Your task to perform on an android device: turn on the 12-hour format for clock Image 0: 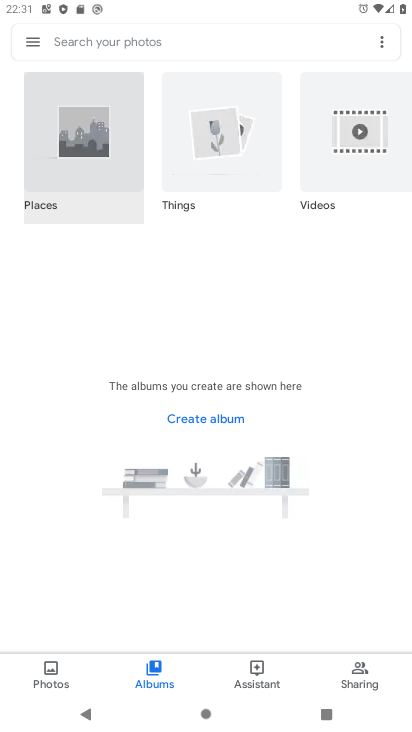
Step 0: drag from (61, 649) to (252, 276)
Your task to perform on an android device: turn on the 12-hour format for clock Image 1: 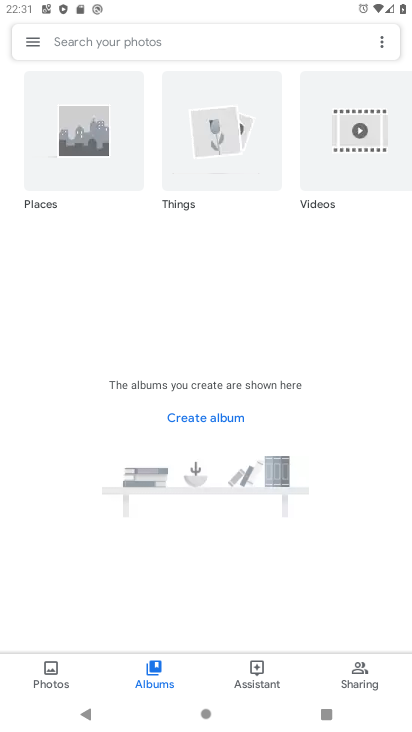
Step 1: press home button
Your task to perform on an android device: turn on the 12-hour format for clock Image 2: 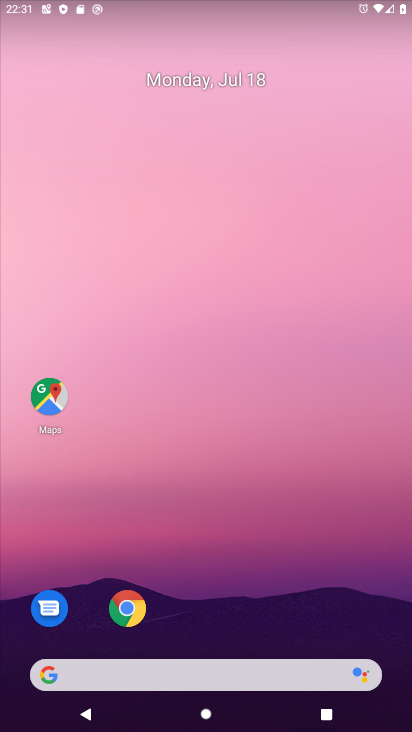
Step 2: drag from (49, 680) to (193, 310)
Your task to perform on an android device: turn on the 12-hour format for clock Image 3: 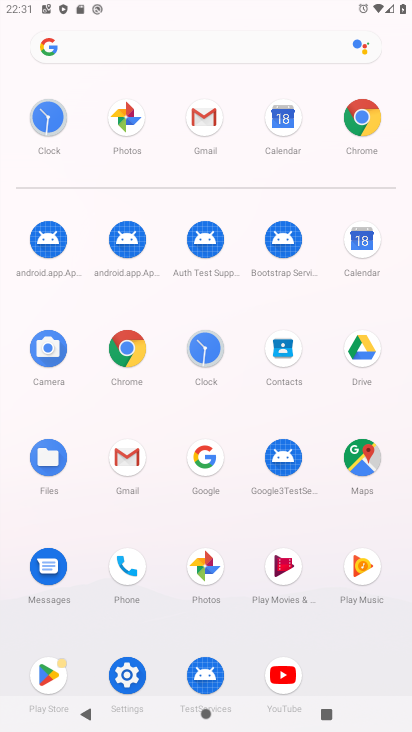
Step 3: click (202, 352)
Your task to perform on an android device: turn on the 12-hour format for clock Image 4: 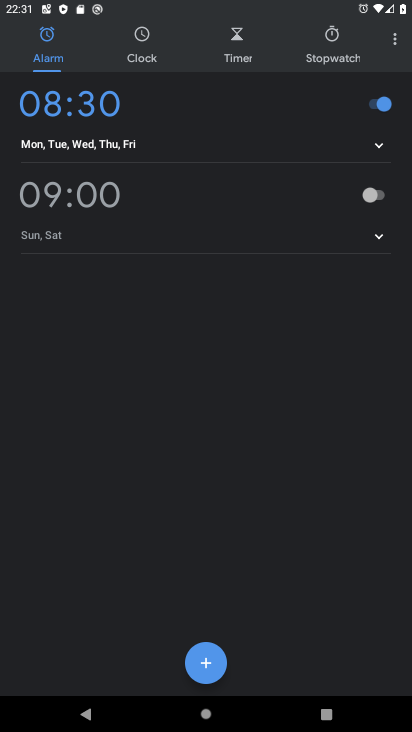
Step 4: click (390, 30)
Your task to perform on an android device: turn on the 12-hour format for clock Image 5: 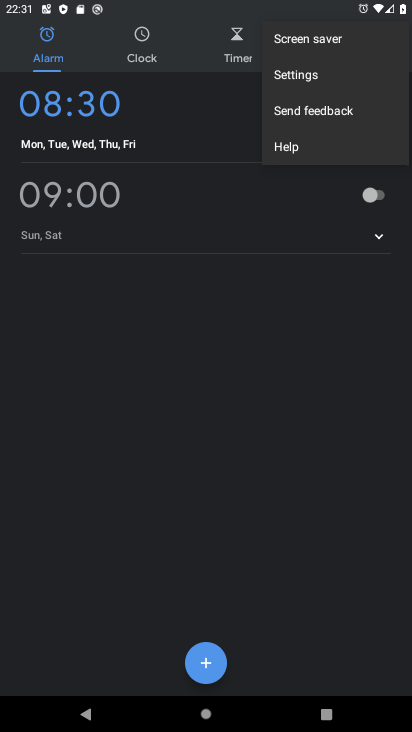
Step 5: click (294, 79)
Your task to perform on an android device: turn on the 12-hour format for clock Image 6: 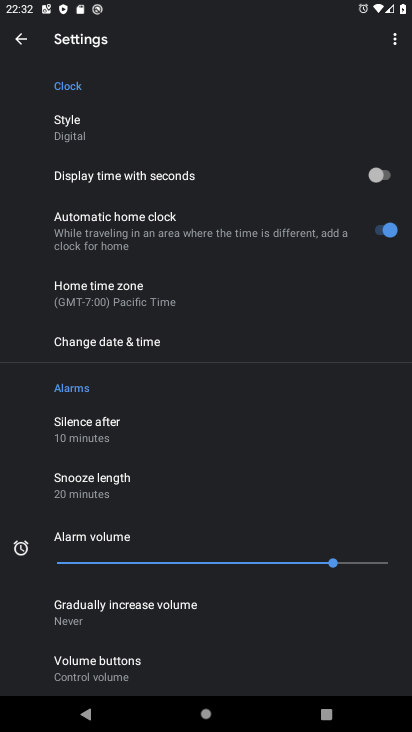
Step 6: click (115, 347)
Your task to perform on an android device: turn on the 12-hour format for clock Image 7: 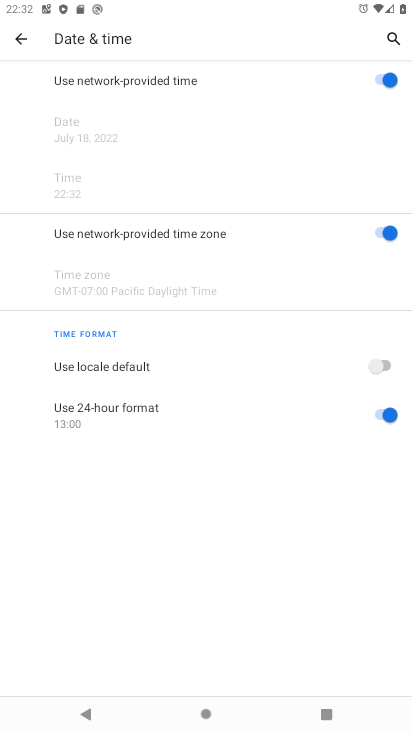
Step 7: click (395, 420)
Your task to perform on an android device: turn on the 12-hour format for clock Image 8: 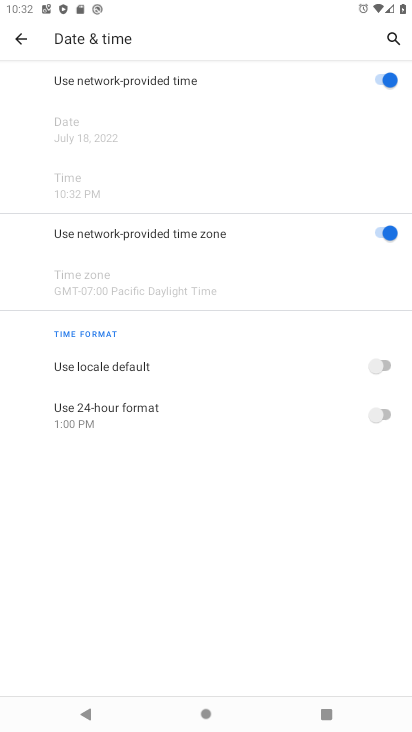
Step 8: task complete